Your task to perform on an android device: create a new album in the google photos Image 0: 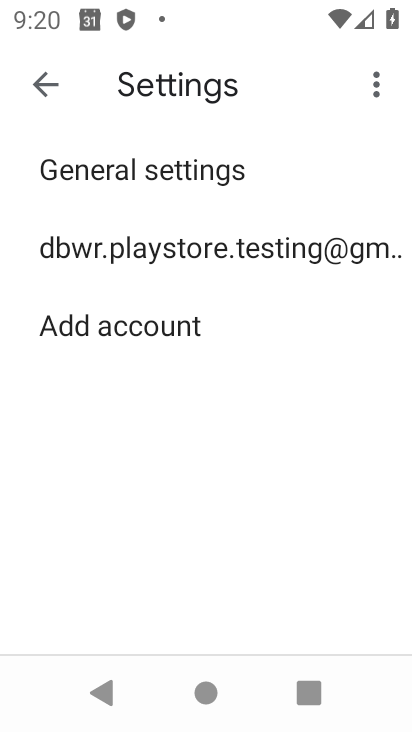
Step 0: press home button
Your task to perform on an android device: create a new album in the google photos Image 1: 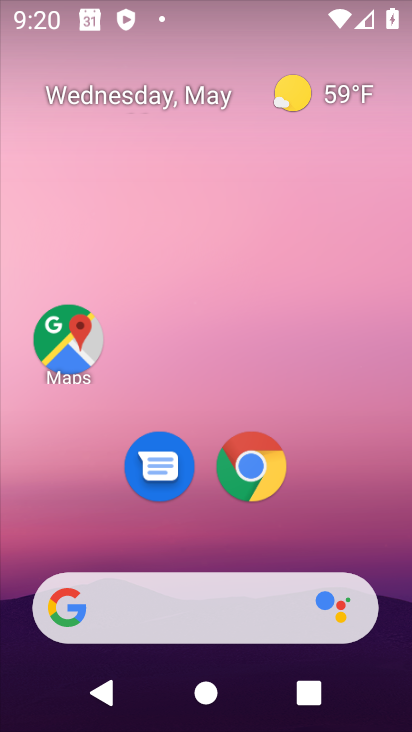
Step 1: drag from (336, 331) to (340, 286)
Your task to perform on an android device: create a new album in the google photos Image 2: 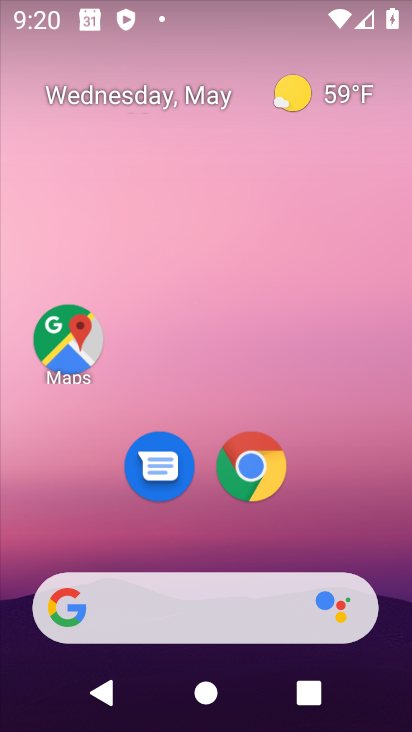
Step 2: drag from (305, 533) to (297, 302)
Your task to perform on an android device: create a new album in the google photos Image 3: 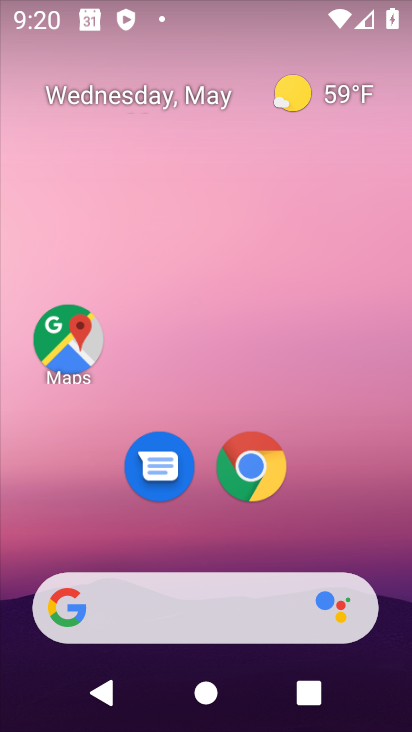
Step 3: drag from (331, 539) to (367, 295)
Your task to perform on an android device: create a new album in the google photos Image 4: 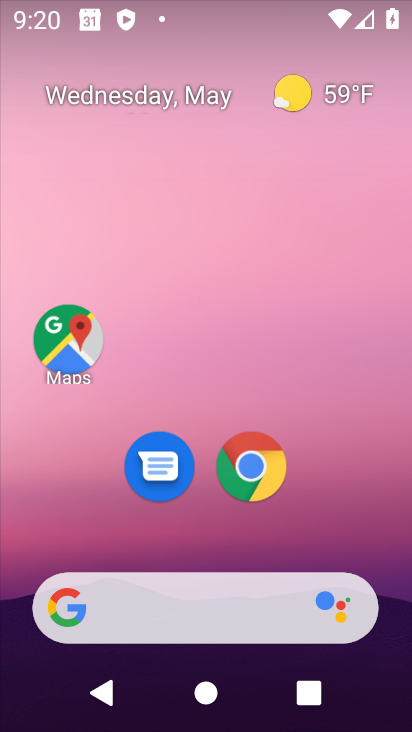
Step 4: drag from (298, 549) to (298, 192)
Your task to perform on an android device: create a new album in the google photos Image 5: 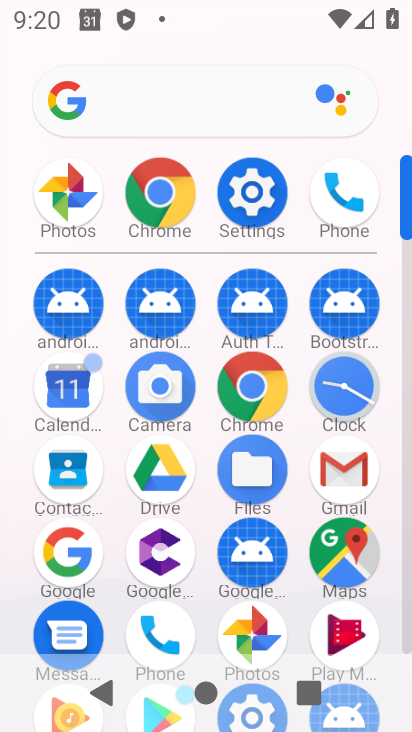
Step 5: click (249, 620)
Your task to perform on an android device: create a new album in the google photos Image 6: 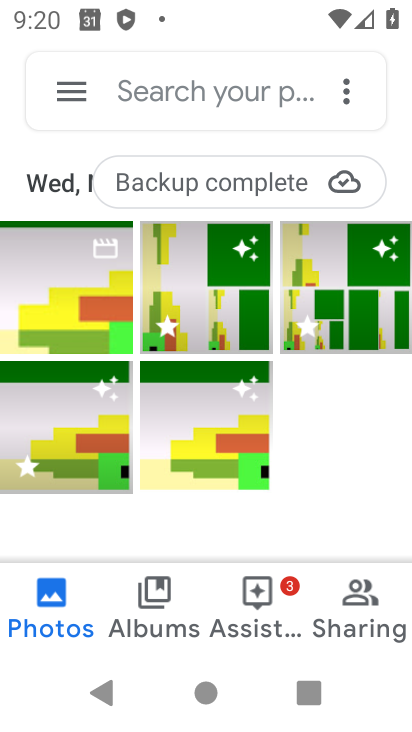
Step 6: click (98, 277)
Your task to perform on an android device: create a new album in the google photos Image 7: 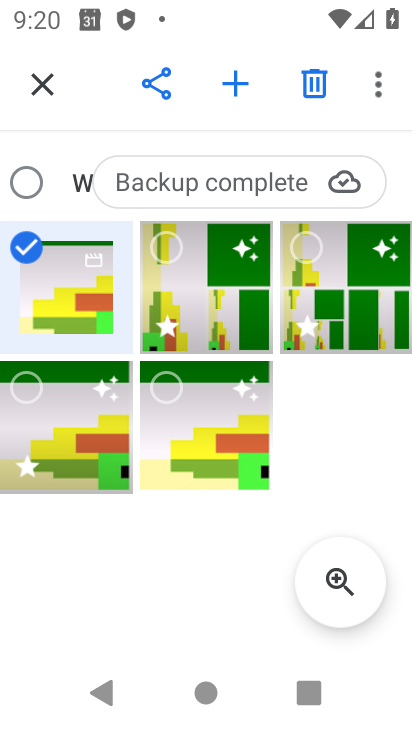
Step 7: click (241, 76)
Your task to perform on an android device: create a new album in the google photos Image 8: 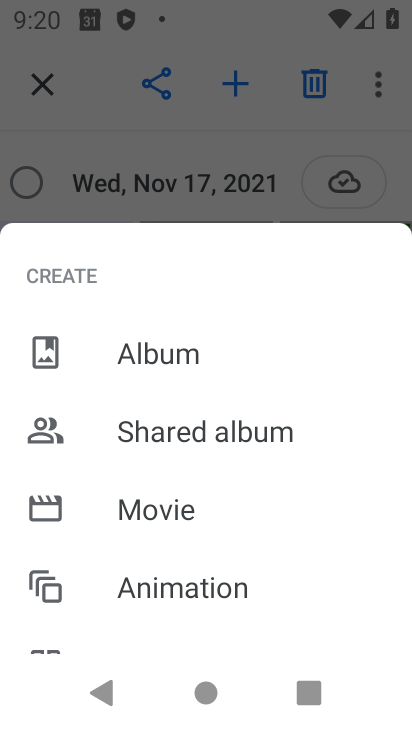
Step 8: click (127, 353)
Your task to perform on an android device: create a new album in the google photos Image 9: 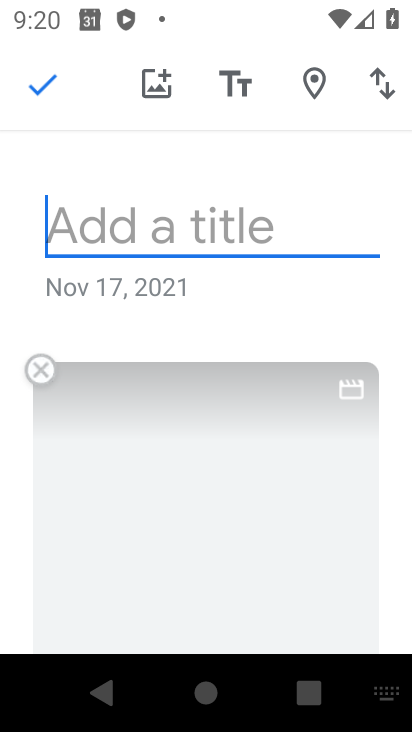
Step 9: click (135, 216)
Your task to perform on an android device: create a new album in the google photos Image 10: 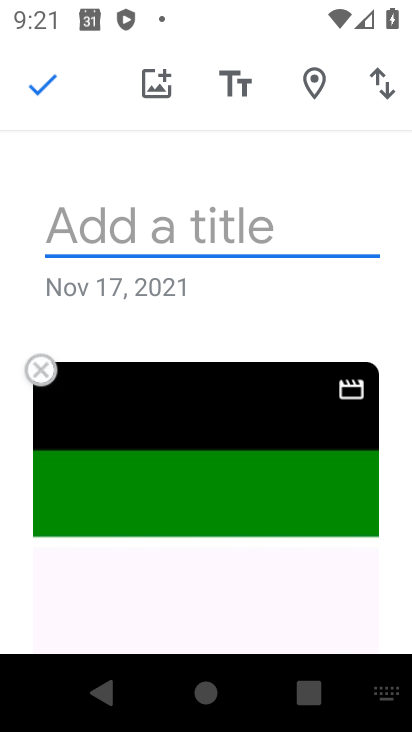
Step 10: type "ppppppk"
Your task to perform on an android device: create a new album in the google photos Image 11: 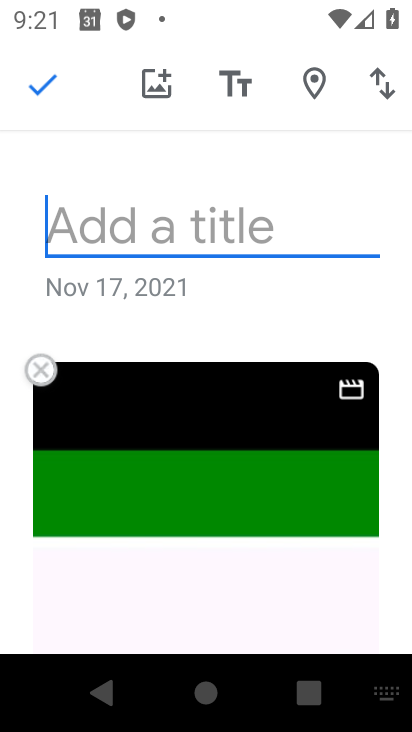
Step 11: click (46, 77)
Your task to perform on an android device: create a new album in the google photos Image 12: 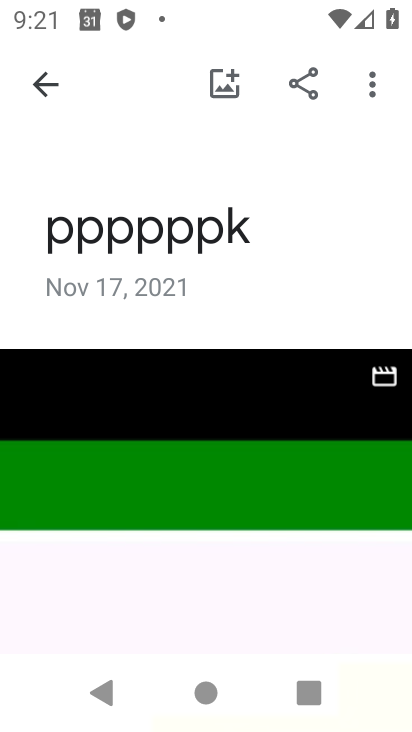
Step 12: task complete